Your task to perform on an android device: Do I have any events tomorrow? Image 0: 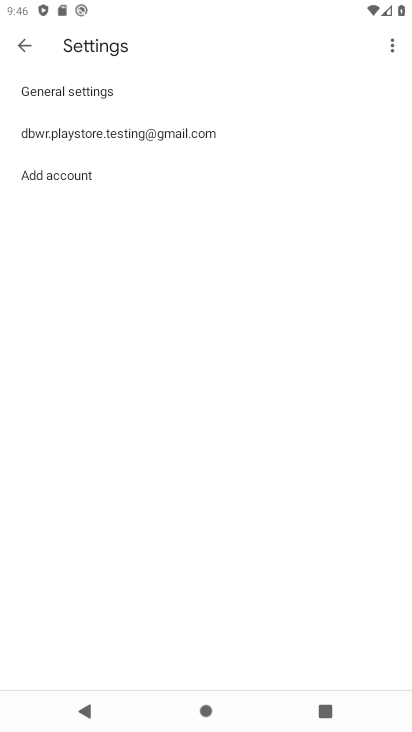
Step 0: press home button
Your task to perform on an android device: Do I have any events tomorrow? Image 1: 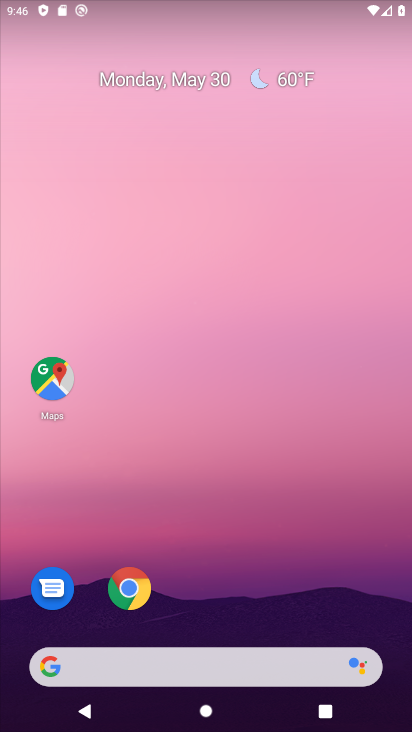
Step 1: drag from (170, 625) to (304, 1)
Your task to perform on an android device: Do I have any events tomorrow? Image 2: 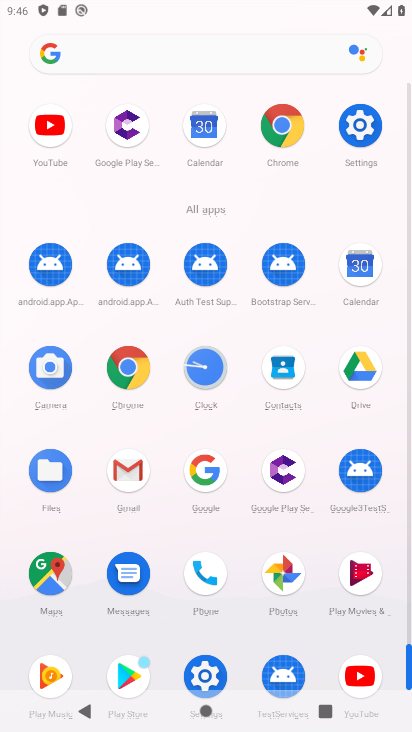
Step 2: click (284, 387)
Your task to perform on an android device: Do I have any events tomorrow? Image 3: 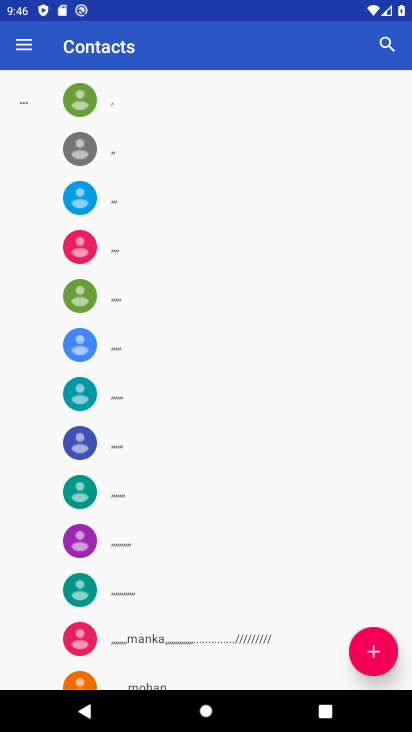
Step 3: press home button
Your task to perform on an android device: Do I have any events tomorrow? Image 4: 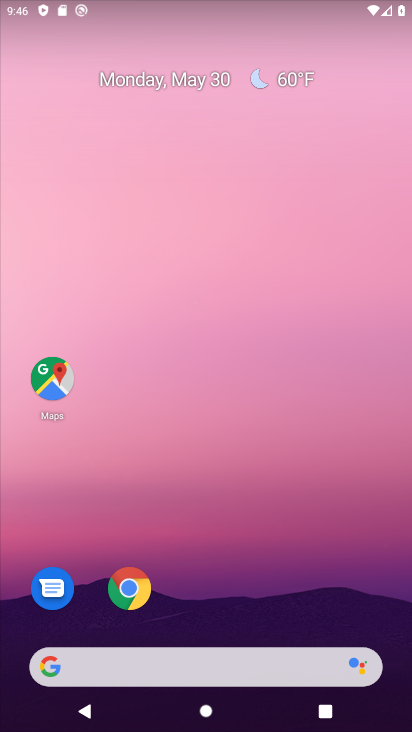
Step 4: drag from (237, 570) to (243, 16)
Your task to perform on an android device: Do I have any events tomorrow? Image 5: 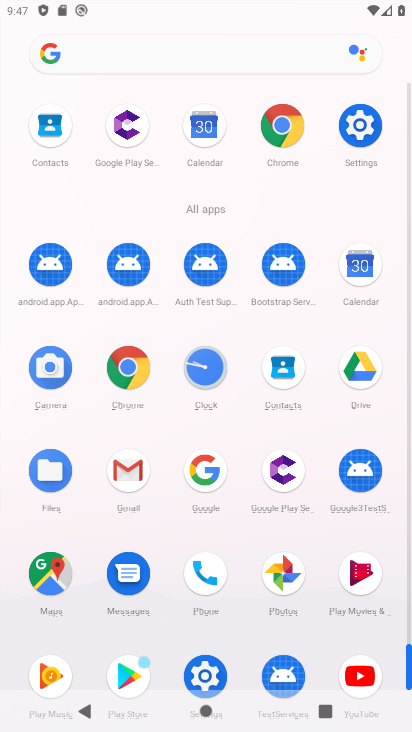
Step 5: click (362, 268)
Your task to perform on an android device: Do I have any events tomorrow? Image 6: 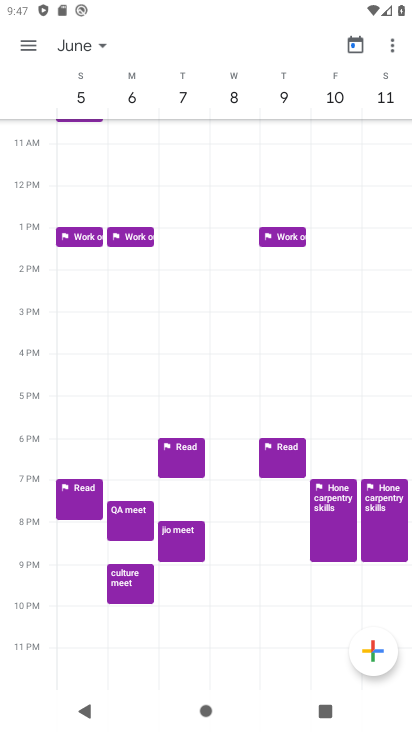
Step 6: drag from (102, 99) to (381, 22)
Your task to perform on an android device: Do I have any events tomorrow? Image 7: 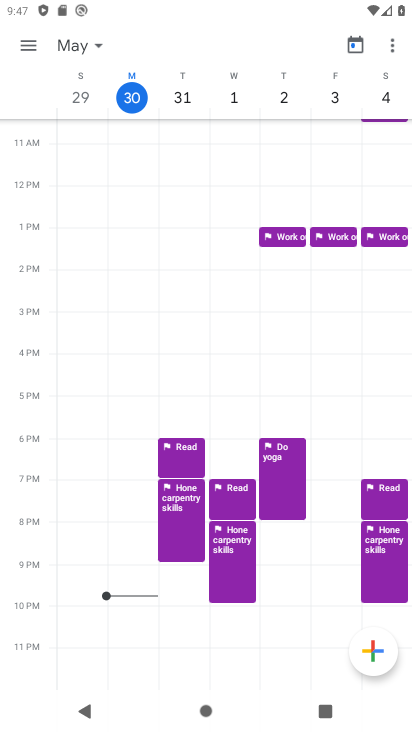
Step 7: click (18, 45)
Your task to perform on an android device: Do I have any events tomorrow? Image 8: 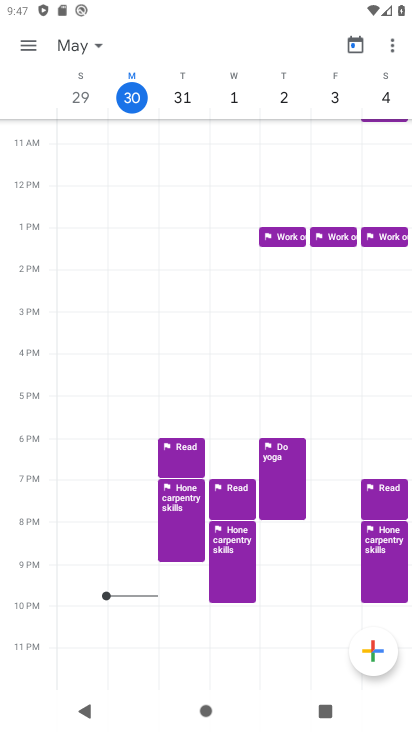
Step 8: click (29, 39)
Your task to perform on an android device: Do I have any events tomorrow? Image 9: 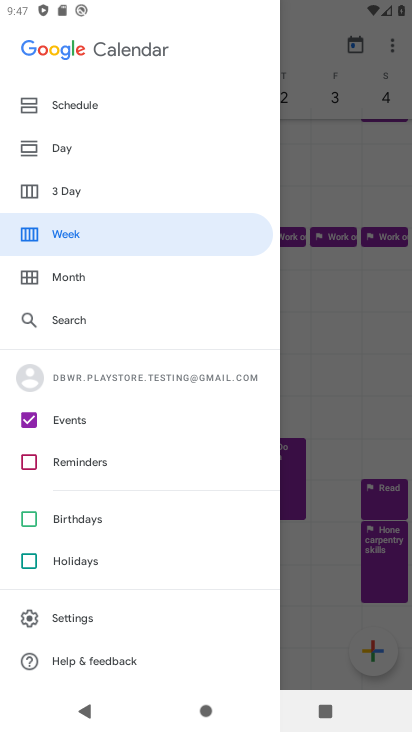
Step 9: click (84, 188)
Your task to perform on an android device: Do I have any events tomorrow? Image 10: 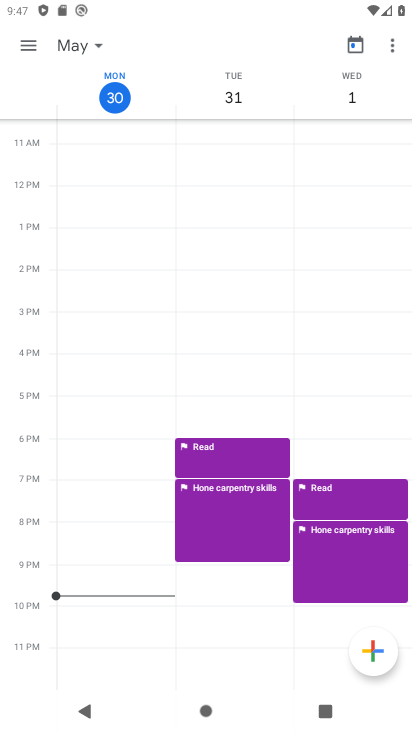
Step 10: task complete